Your task to perform on an android device: What is the news today? Image 0: 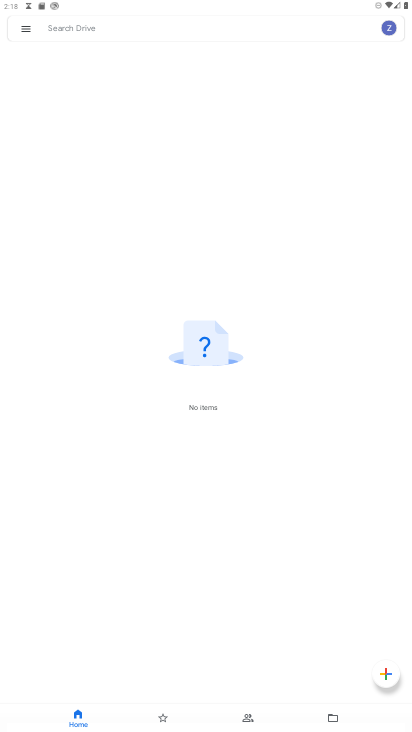
Step 0: press home button
Your task to perform on an android device: What is the news today? Image 1: 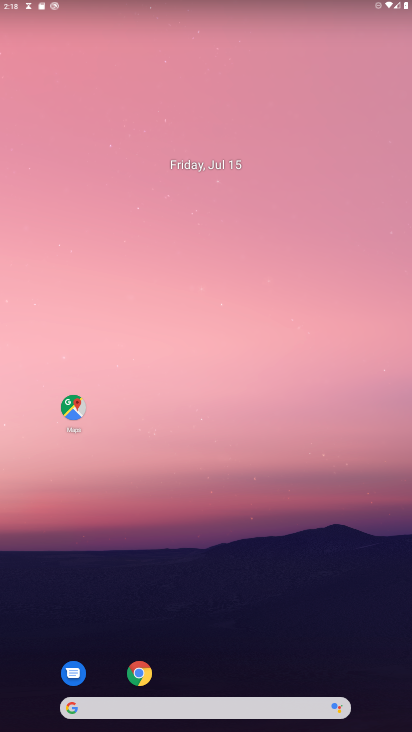
Step 1: drag from (171, 684) to (191, 309)
Your task to perform on an android device: What is the news today? Image 2: 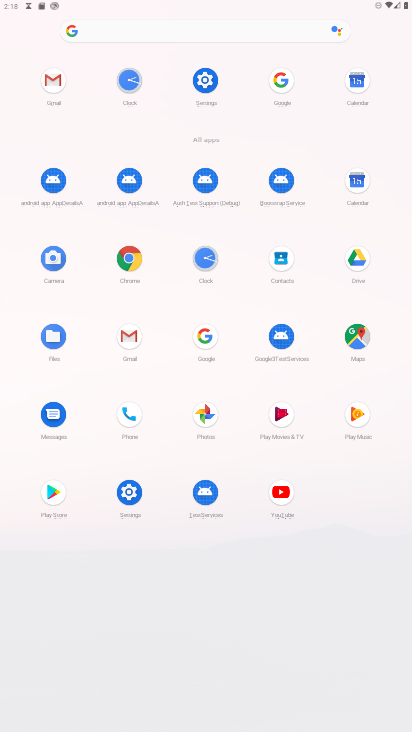
Step 2: click (204, 341)
Your task to perform on an android device: What is the news today? Image 3: 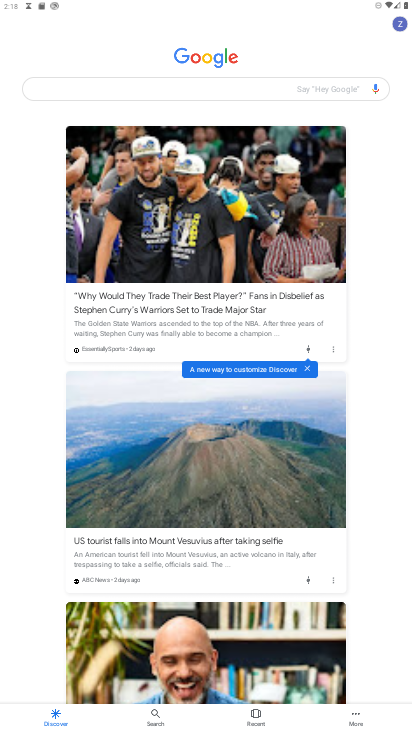
Step 3: click (160, 83)
Your task to perform on an android device: What is the news today? Image 4: 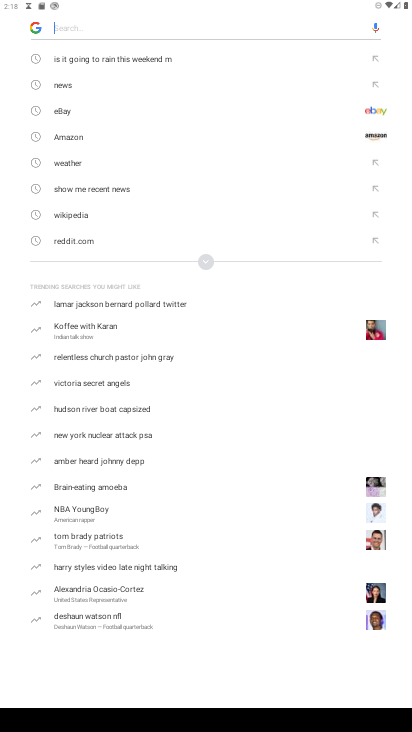
Step 4: click (58, 89)
Your task to perform on an android device: What is the news today? Image 5: 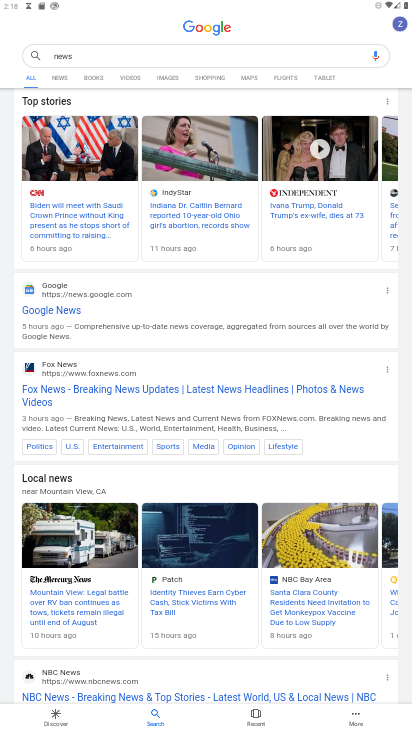
Step 5: click (66, 312)
Your task to perform on an android device: What is the news today? Image 6: 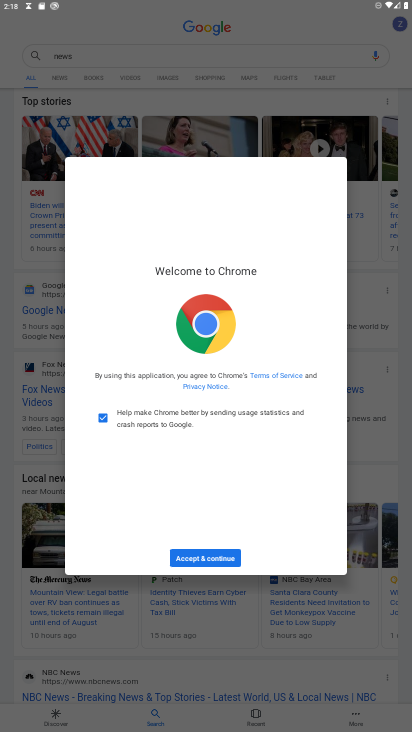
Step 6: task complete